Your task to perform on an android device: turn on wifi Image 0: 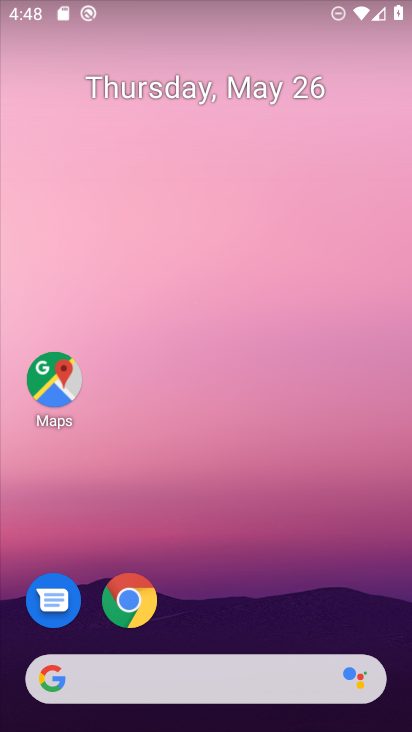
Step 0: drag from (226, 629) to (352, 72)
Your task to perform on an android device: turn on wifi Image 1: 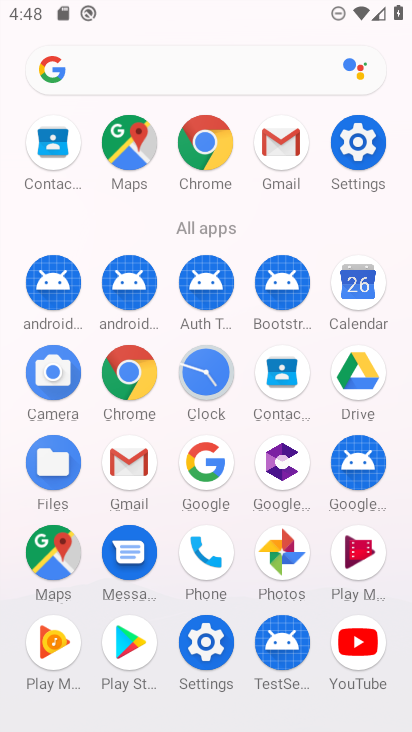
Step 1: click (367, 162)
Your task to perform on an android device: turn on wifi Image 2: 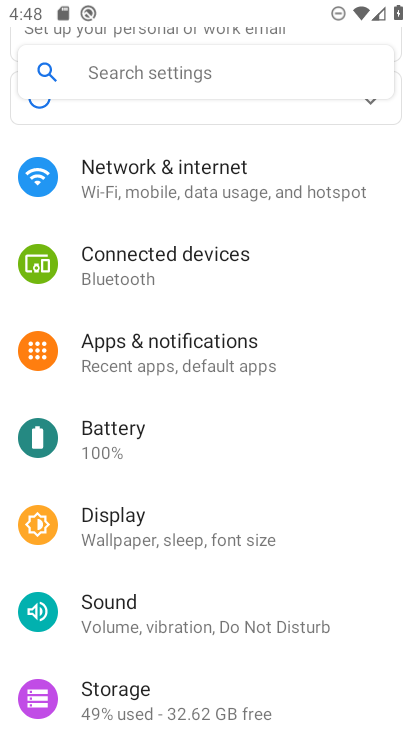
Step 2: drag from (203, 203) to (189, 632)
Your task to perform on an android device: turn on wifi Image 3: 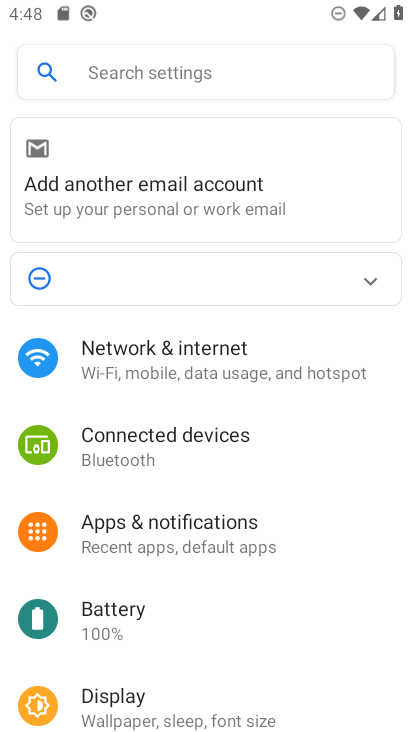
Step 3: click (200, 363)
Your task to perform on an android device: turn on wifi Image 4: 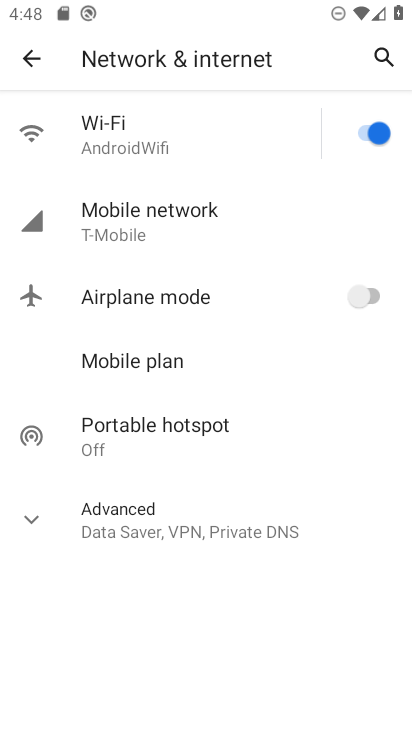
Step 4: task complete